Your task to perform on an android device: turn off smart reply in the gmail app Image 0: 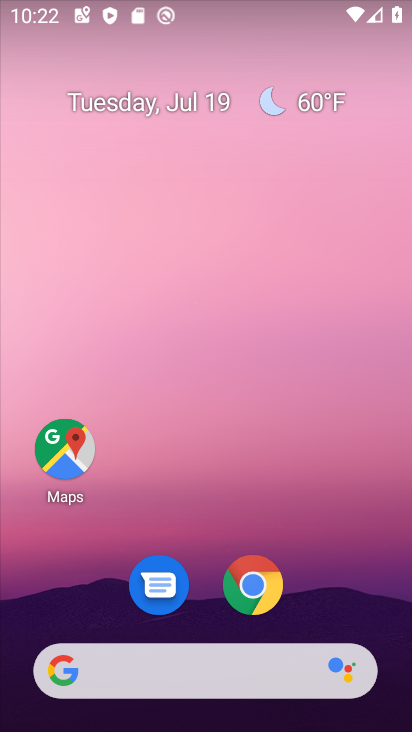
Step 0: drag from (306, 544) to (308, 19)
Your task to perform on an android device: turn off smart reply in the gmail app Image 1: 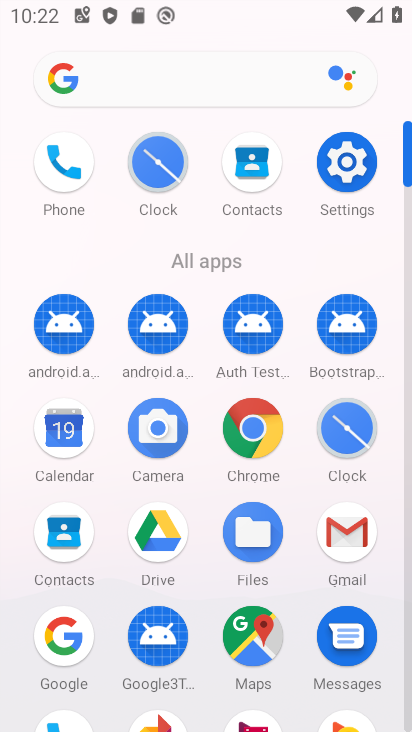
Step 1: click (348, 528)
Your task to perform on an android device: turn off smart reply in the gmail app Image 2: 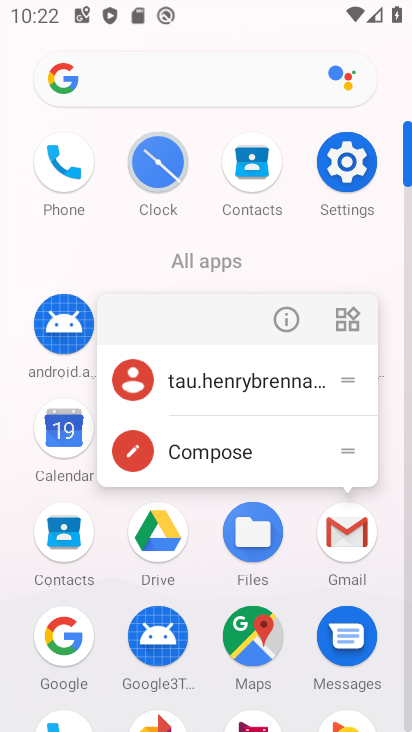
Step 2: click (348, 525)
Your task to perform on an android device: turn off smart reply in the gmail app Image 3: 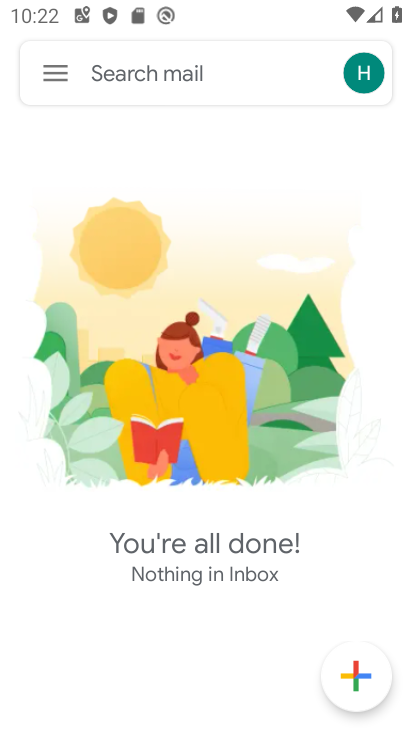
Step 3: click (54, 77)
Your task to perform on an android device: turn off smart reply in the gmail app Image 4: 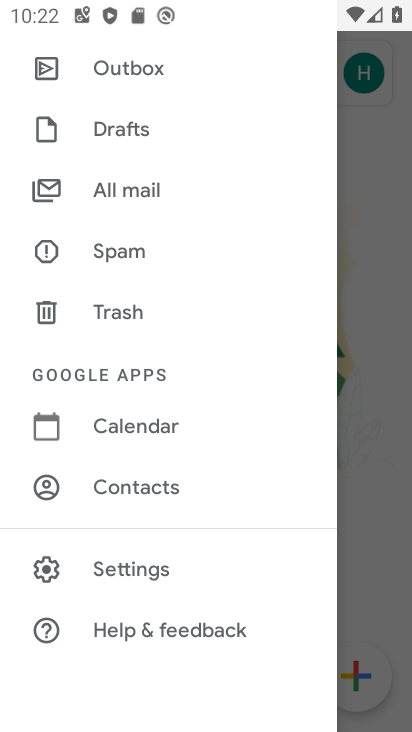
Step 4: click (126, 573)
Your task to perform on an android device: turn off smart reply in the gmail app Image 5: 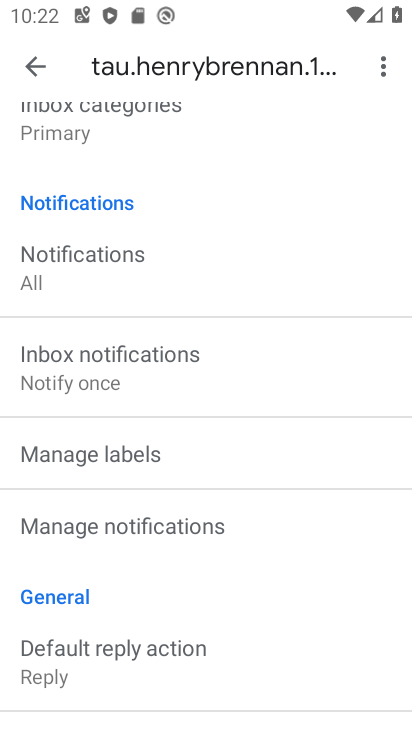
Step 5: drag from (246, 408) to (281, 67)
Your task to perform on an android device: turn off smart reply in the gmail app Image 6: 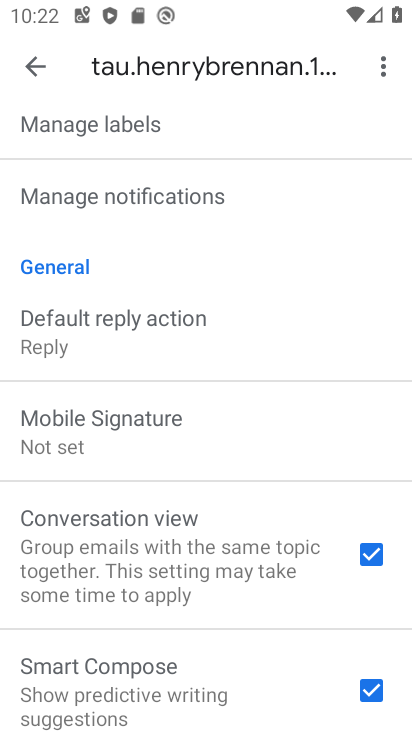
Step 6: drag from (283, 616) to (302, 230)
Your task to perform on an android device: turn off smart reply in the gmail app Image 7: 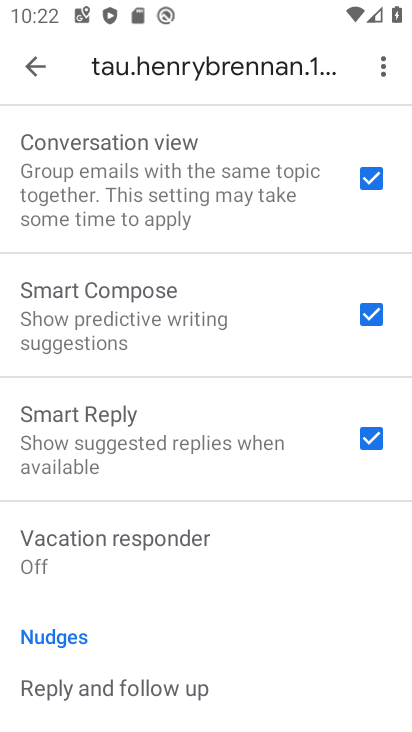
Step 7: click (371, 433)
Your task to perform on an android device: turn off smart reply in the gmail app Image 8: 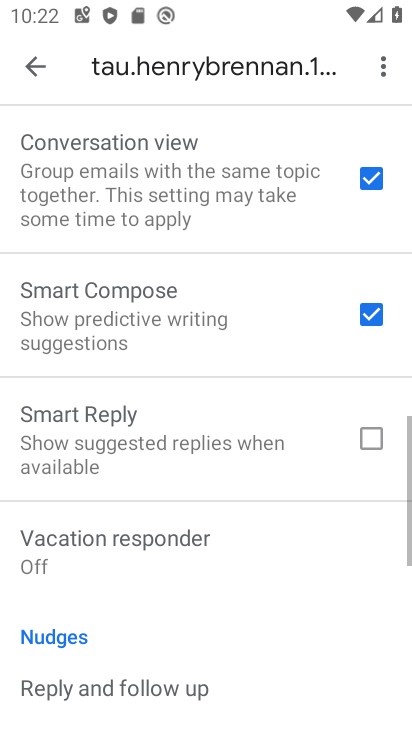
Step 8: task complete